Your task to perform on an android device: turn notification dots off Image 0: 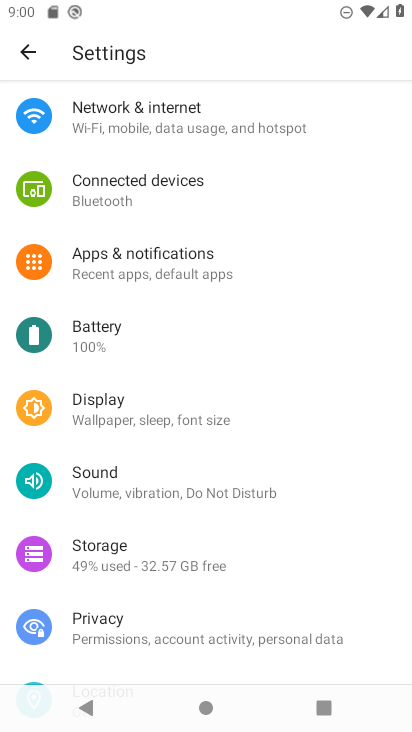
Step 0: click (151, 266)
Your task to perform on an android device: turn notification dots off Image 1: 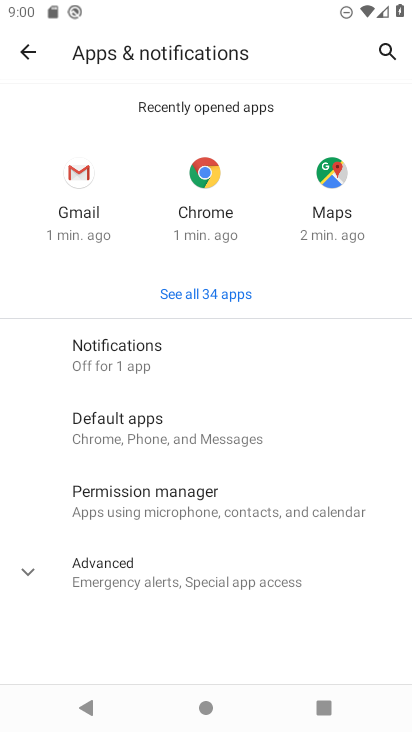
Step 1: drag from (230, 605) to (271, 284)
Your task to perform on an android device: turn notification dots off Image 2: 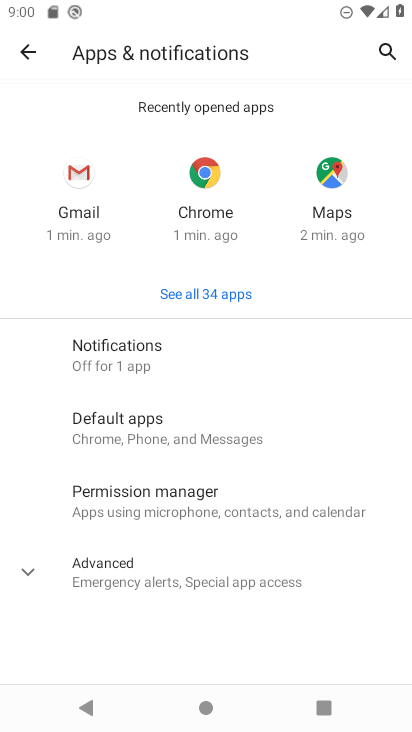
Step 2: click (146, 574)
Your task to perform on an android device: turn notification dots off Image 3: 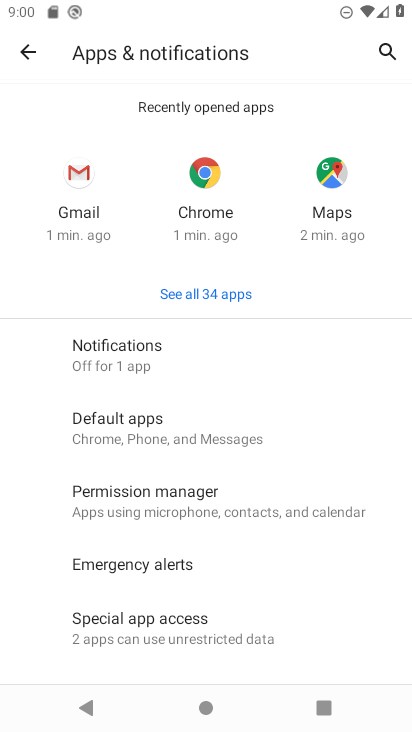
Step 3: drag from (179, 539) to (240, 256)
Your task to perform on an android device: turn notification dots off Image 4: 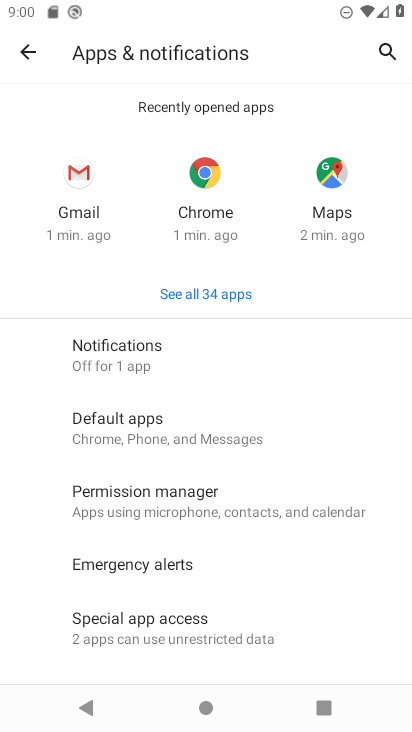
Step 4: drag from (239, 610) to (280, 323)
Your task to perform on an android device: turn notification dots off Image 5: 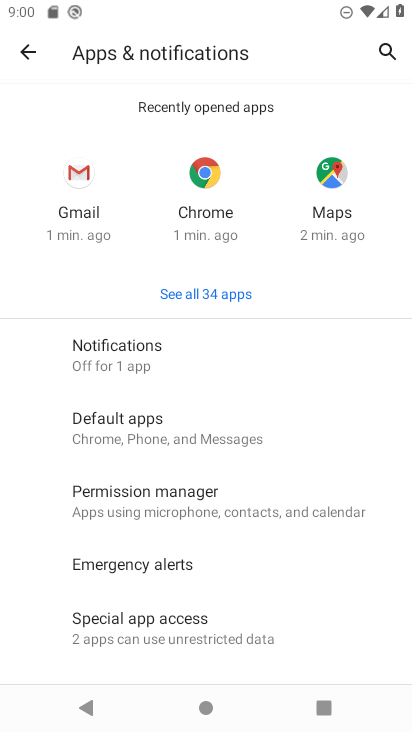
Step 5: click (213, 357)
Your task to perform on an android device: turn notification dots off Image 6: 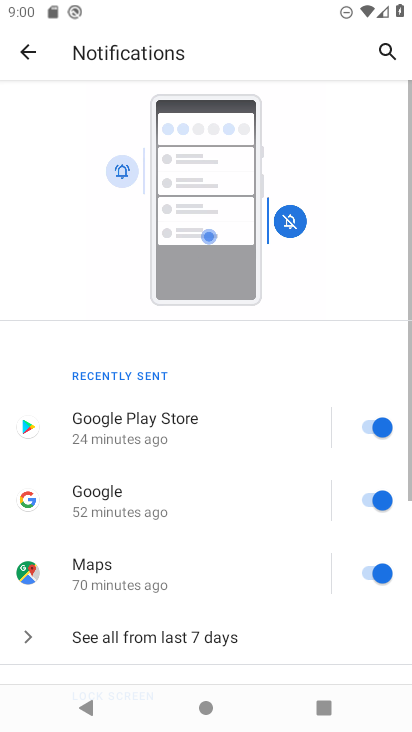
Step 6: drag from (261, 560) to (303, 350)
Your task to perform on an android device: turn notification dots off Image 7: 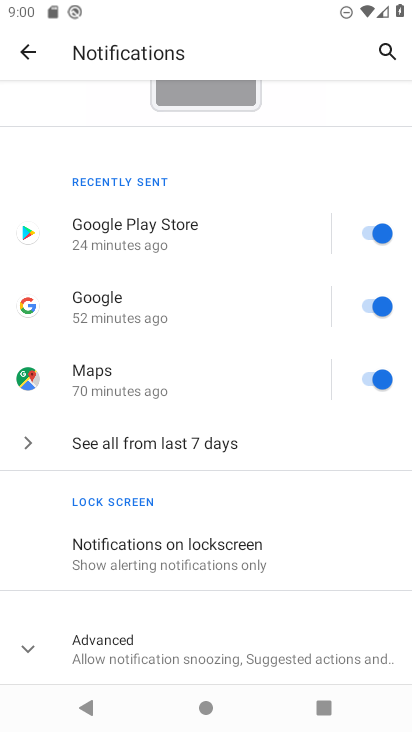
Step 7: drag from (295, 560) to (365, 189)
Your task to perform on an android device: turn notification dots off Image 8: 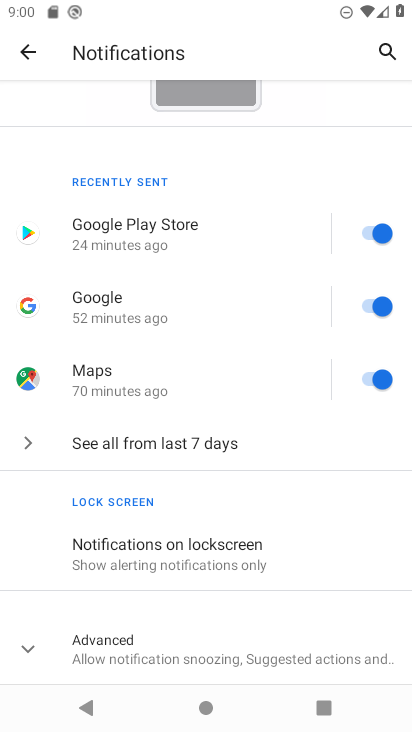
Step 8: drag from (216, 623) to (250, 468)
Your task to perform on an android device: turn notification dots off Image 9: 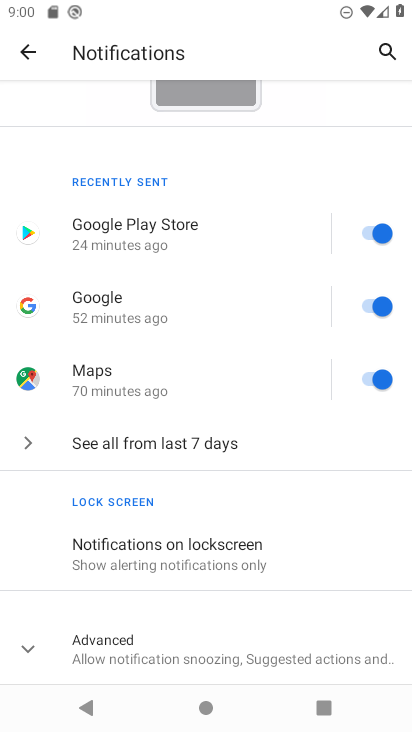
Step 9: click (185, 635)
Your task to perform on an android device: turn notification dots off Image 10: 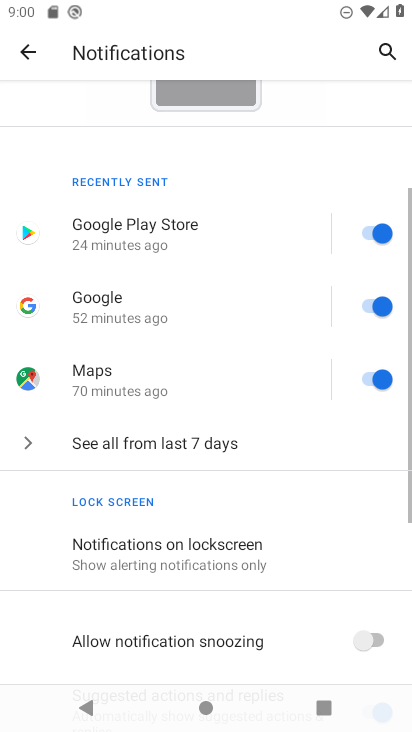
Step 10: drag from (184, 635) to (279, 76)
Your task to perform on an android device: turn notification dots off Image 11: 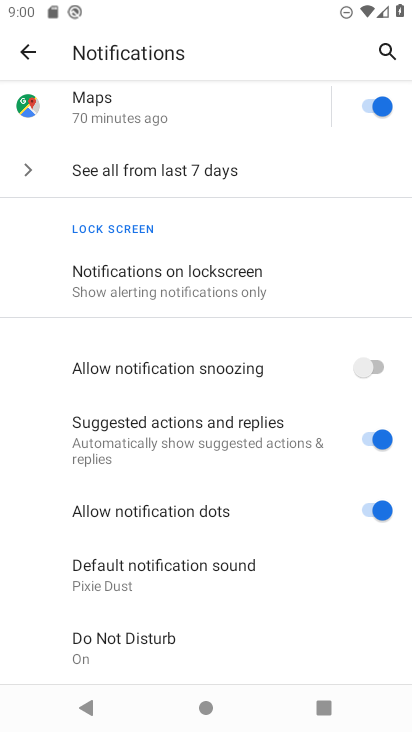
Step 11: click (378, 506)
Your task to perform on an android device: turn notification dots off Image 12: 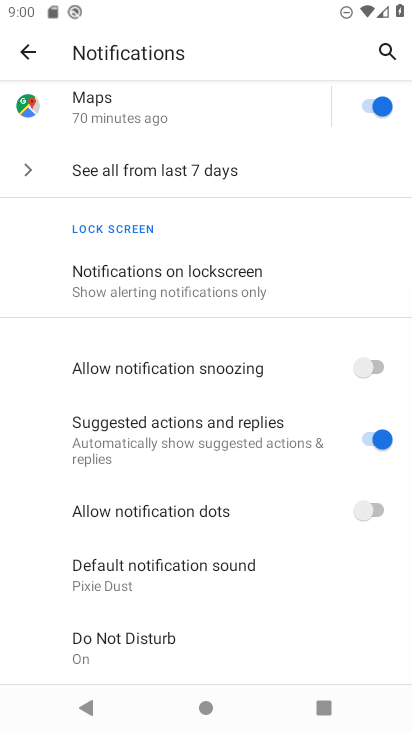
Step 12: task complete